Your task to perform on an android device: turn on notifications settings in the gmail app Image 0: 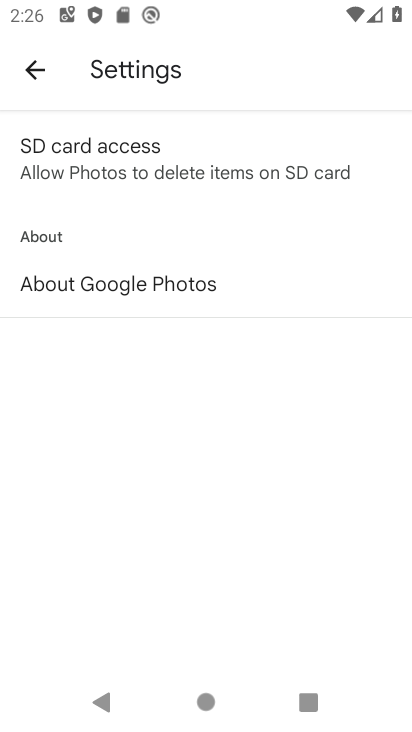
Step 0: press home button
Your task to perform on an android device: turn on notifications settings in the gmail app Image 1: 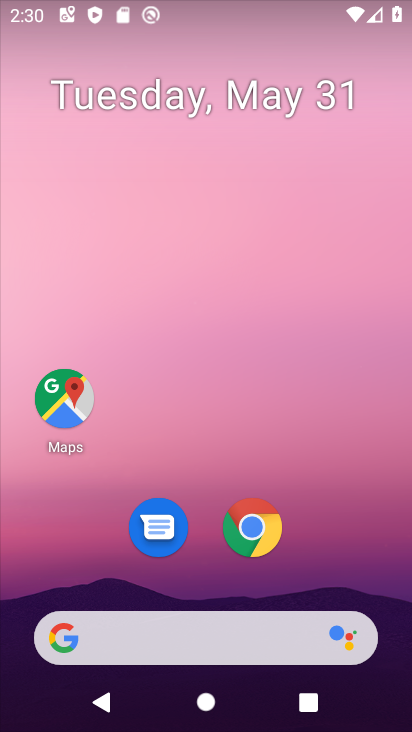
Step 1: drag from (339, 483) to (278, 48)
Your task to perform on an android device: turn on notifications settings in the gmail app Image 2: 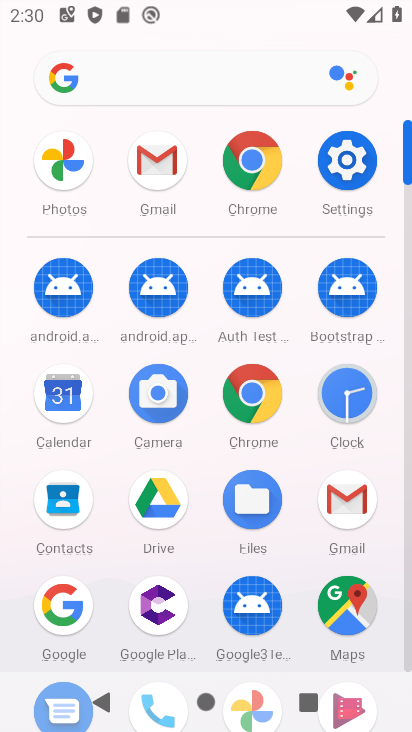
Step 2: click (159, 148)
Your task to perform on an android device: turn on notifications settings in the gmail app Image 3: 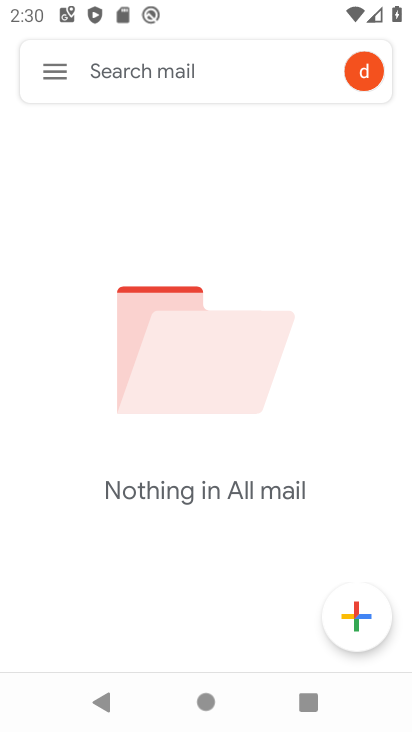
Step 3: click (55, 58)
Your task to perform on an android device: turn on notifications settings in the gmail app Image 4: 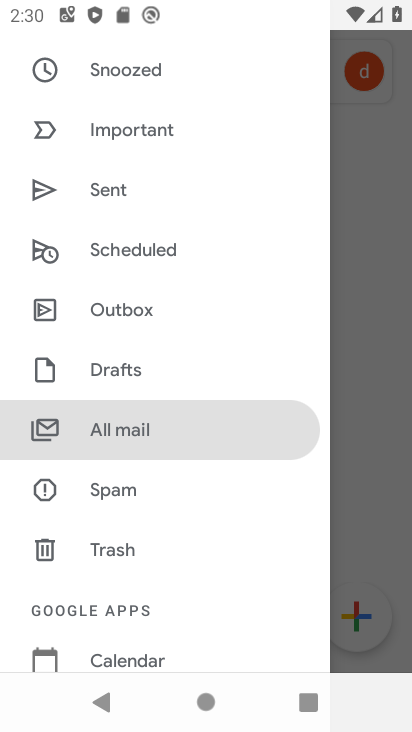
Step 4: drag from (155, 564) to (179, 150)
Your task to perform on an android device: turn on notifications settings in the gmail app Image 5: 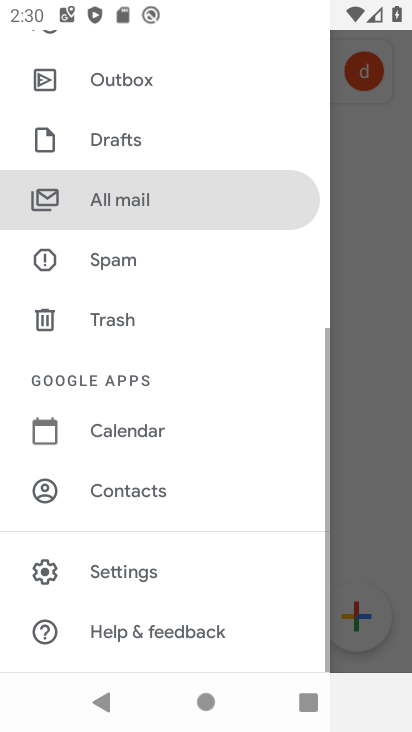
Step 5: click (140, 575)
Your task to perform on an android device: turn on notifications settings in the gmail app Image 6: 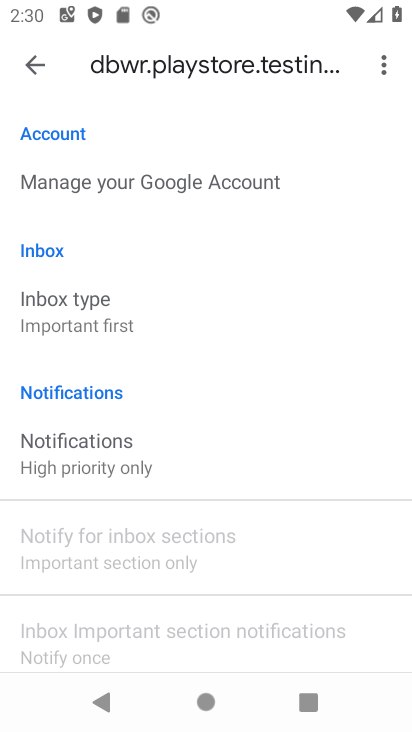
Step 6: click (105, 462)
Your task to perform on an android device: turn on notifications settings in the gmail app Image 7: 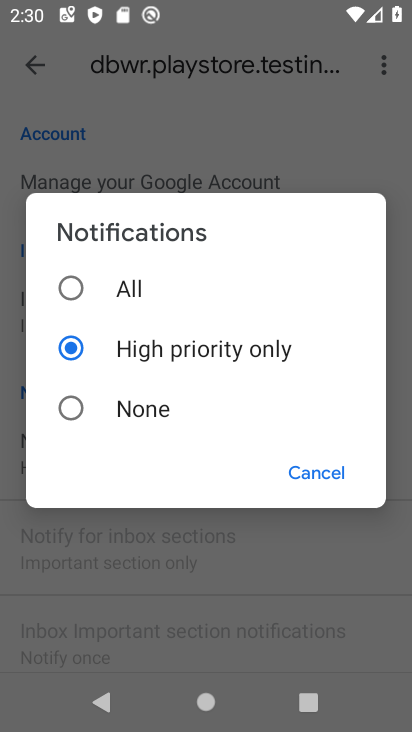
Step 7: click (103, 294)
Your task to perform on an android device: turn on notifications settings in the gmail app Image 8: 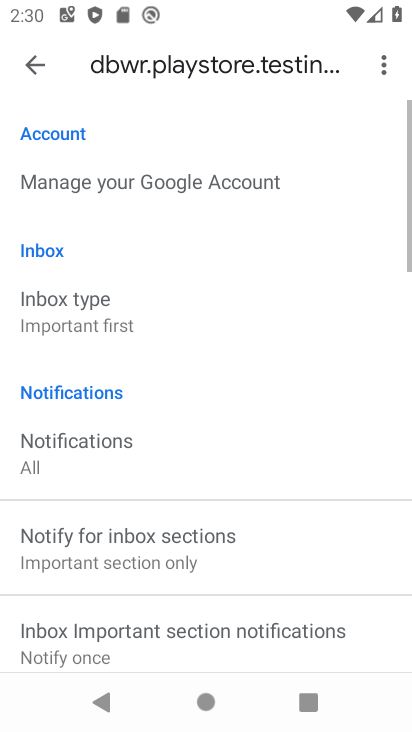
Step 8: task complete